Your task to perform on an android device: Open Maps and search for coffee Image 0: 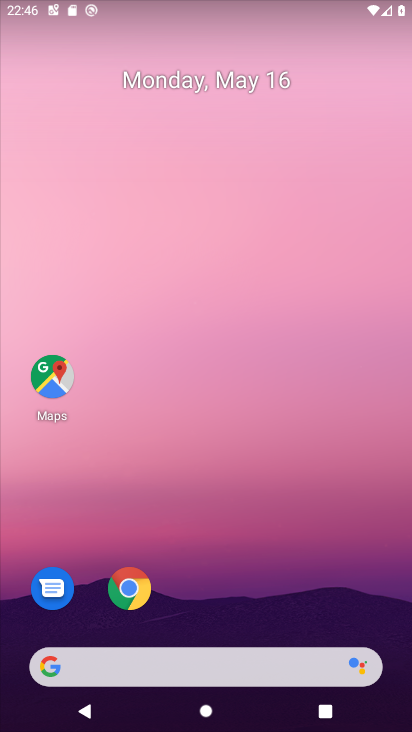
Step 0: click (51, 372)
Your task to perform on an android device: Open Maps and search for coffee Image 1: 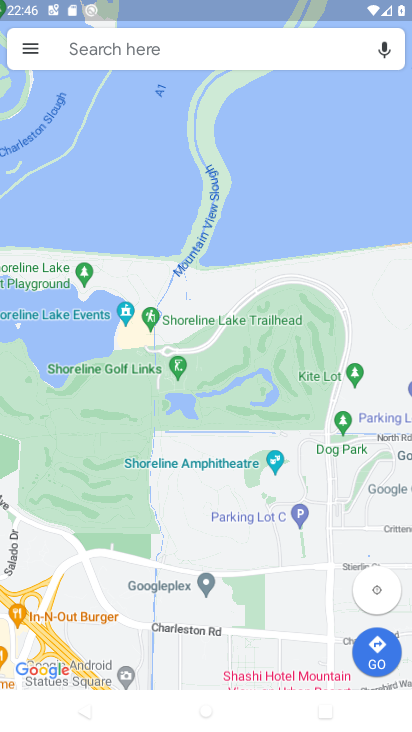
Step 1: click (159, 45)
Your task to perform on an android device: Open Maps and search for coffee Image 2: 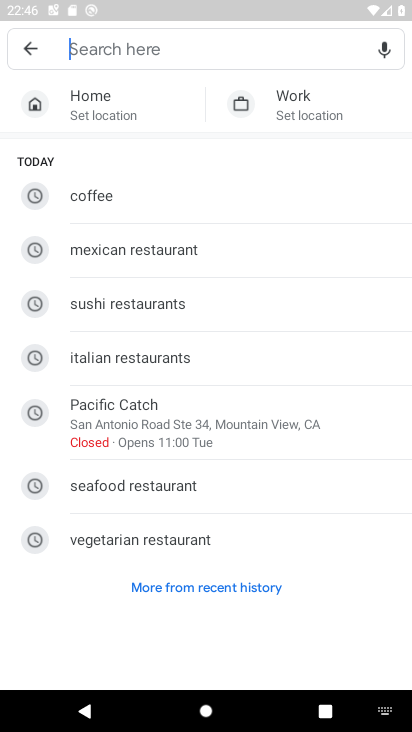
Step 2: click (120, 202)
Your task to perform on an android device: Open Maps and search for coffee Image 3: 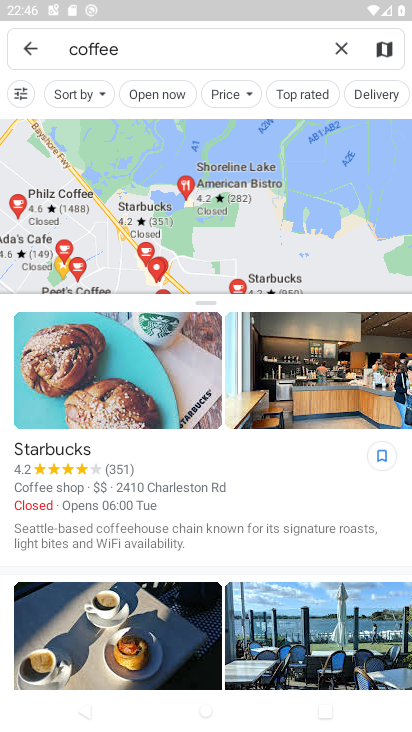
Step 3: task complete